Your task to perform on an android device: turn on data saver in the chrome app Image 0: 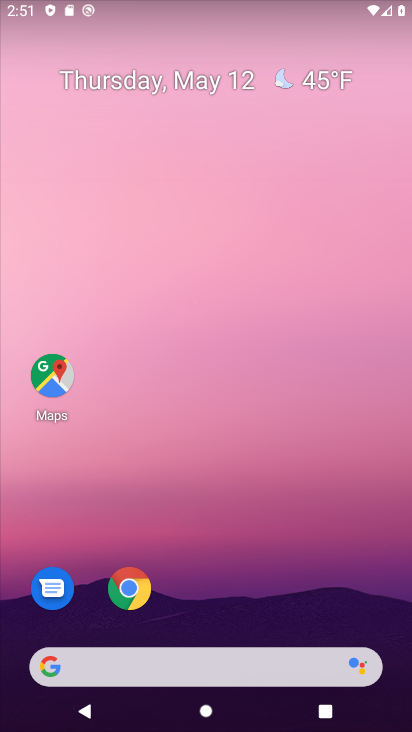
Step 0: drag from (210, 615) to (232, 200)
Your task to perform on an android device: turn on data saver in the chrome app Image 1: 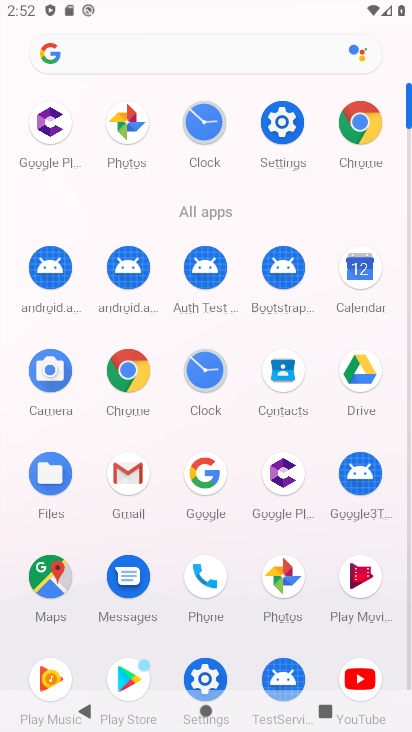
Step 1: click (360, 156)
Your task to perform on an android device: turn on data saver in the chrome app Image 2: 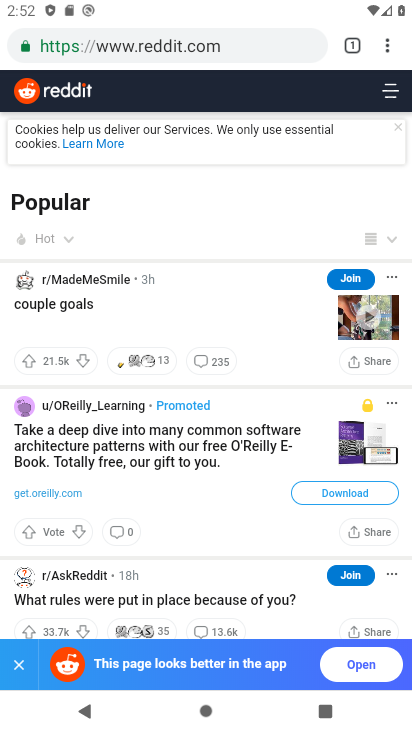
Step 2: click (391, 49)
Your task to perform on an android device: turn on data saver in the chrome app Image 3: 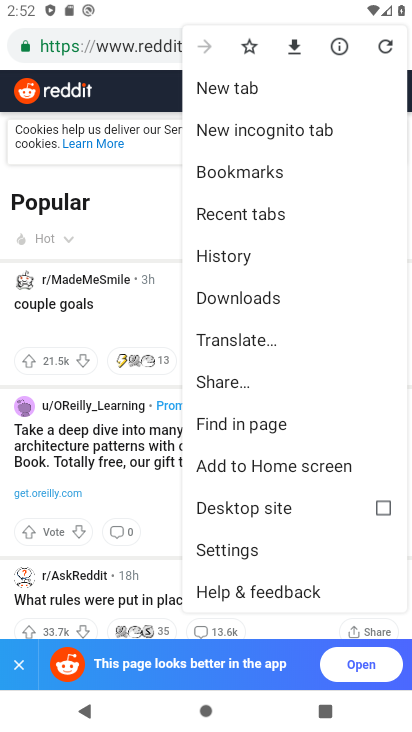
Step 3: click (238, 559)
Your task to perform on an android device: turn on data saver in the chrome app Image 4: 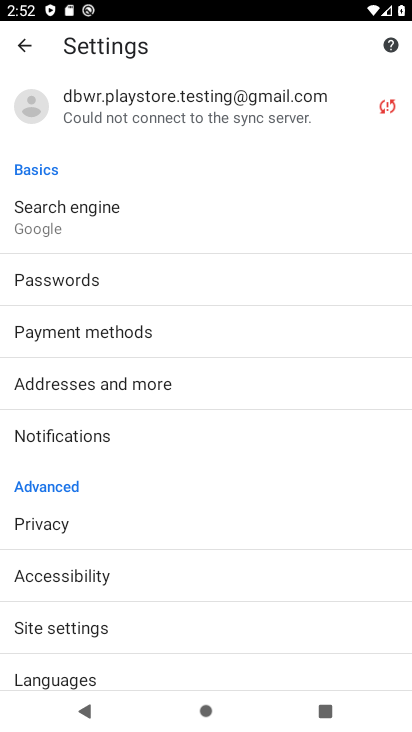
Step 4: drag from (147, 642) to (192, 361)
Your task to perform on an android device: turn on data saver in the chrome app Image 5: 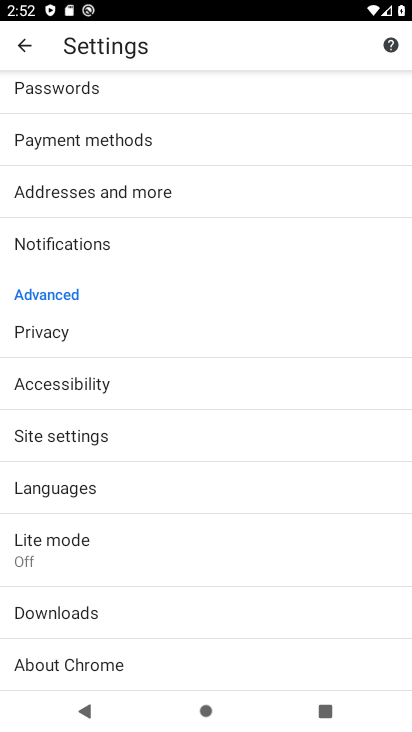
Step 5: click (55, 567)
Your task to perform on an android device: turn on data saver in the chrome app Image 6: 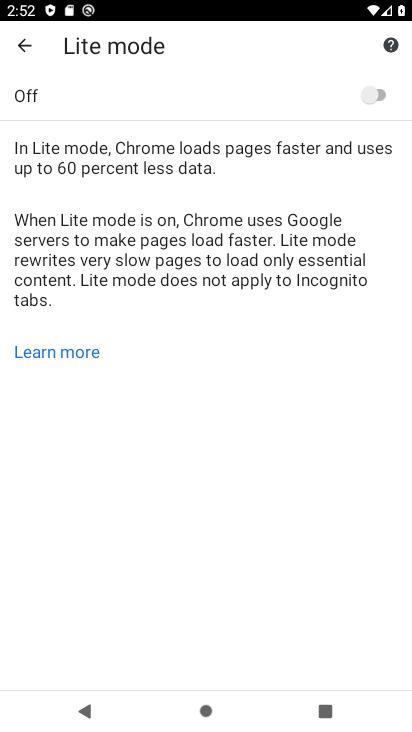
Step 6: click (379, 105)
Your task to perform on an android device: turn on data saver in the chrome app Image 7: 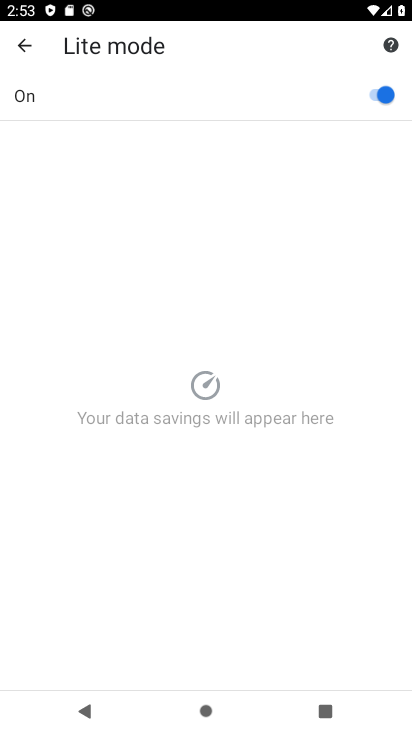
Step 7: task complete